Your task to perform on an android device: allow cookies in the chrome app Image 0: 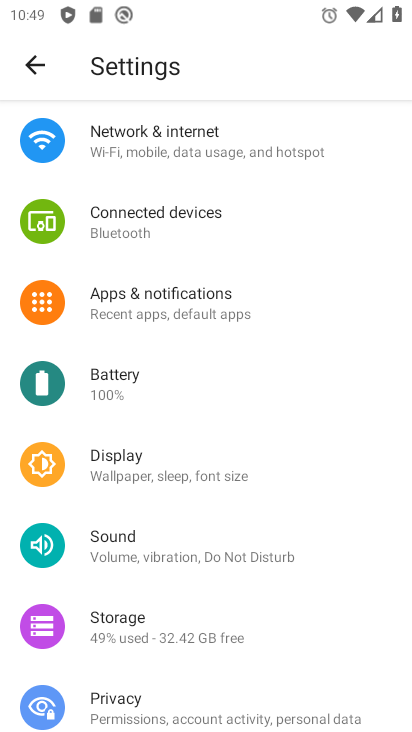
Step 0: press home button
Your task to perform on an android device: allow cookies in the chrome app Image 1: 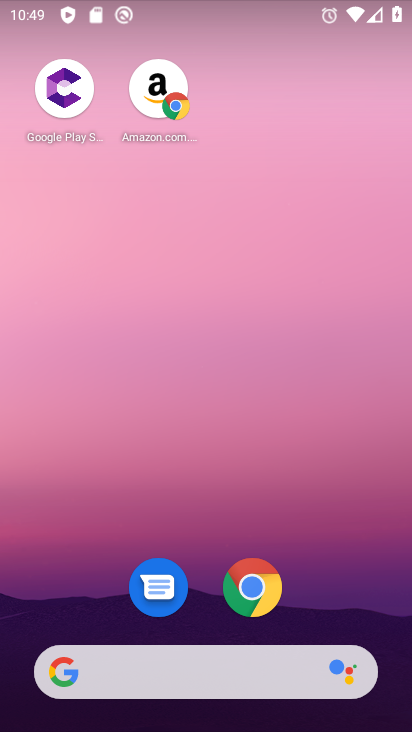
Step 1: drag from (313, 603) to (295, 46)
Your task to perform on an android device: allow cookies in the chrome app Image 2: 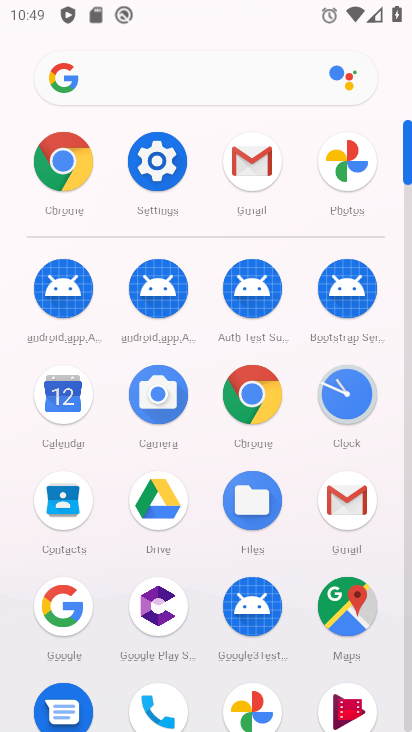
Step 2: click (56, 178)
Your task to perform on an android device: allow cookies in the chrome app Image 3: 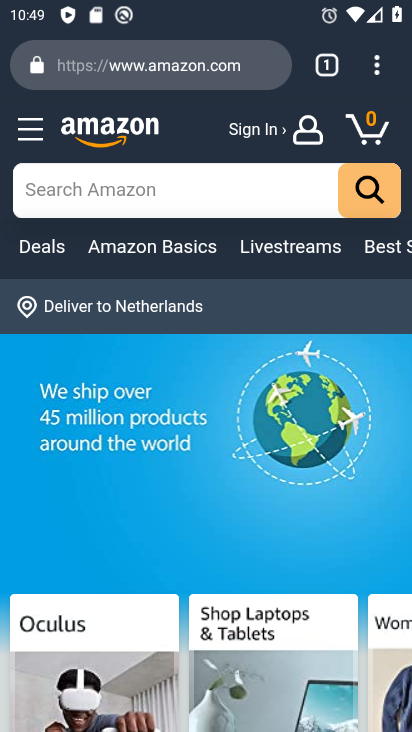
Step 3: drag from (381, 74) to (139, 638)
Your task to perform on an android device: allow cookies in the chrome app Image 4: 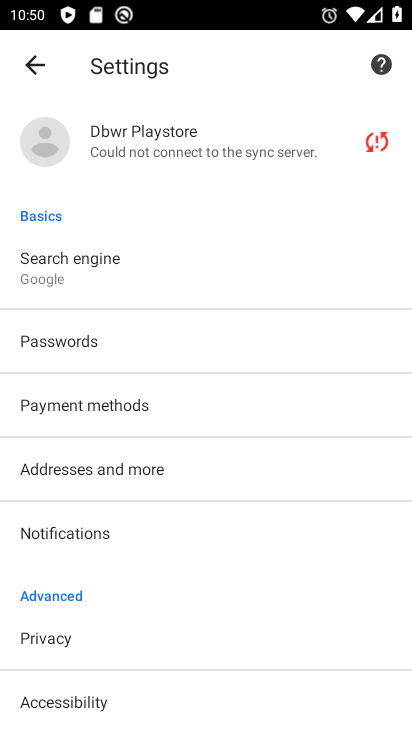
Step 4: drag from (141, 666) to (176, 200)
Your task to perform on an android device: allow cookies in the chrome app Image 5: 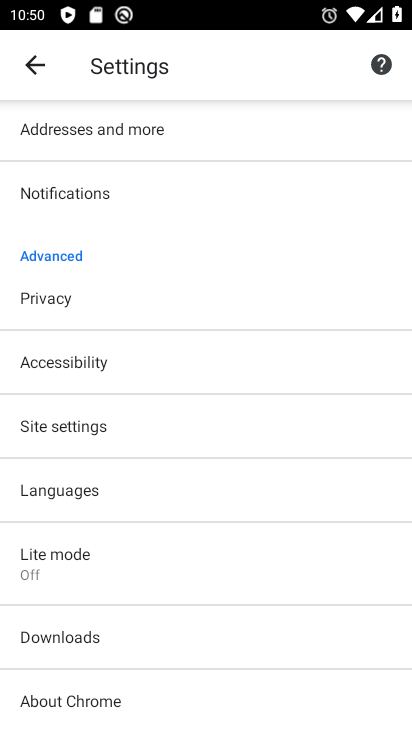
Step 5: drag from (155, 622) to (186, 172)
Your task to perform on an android device: allow cookies in the chrome app Image 6: 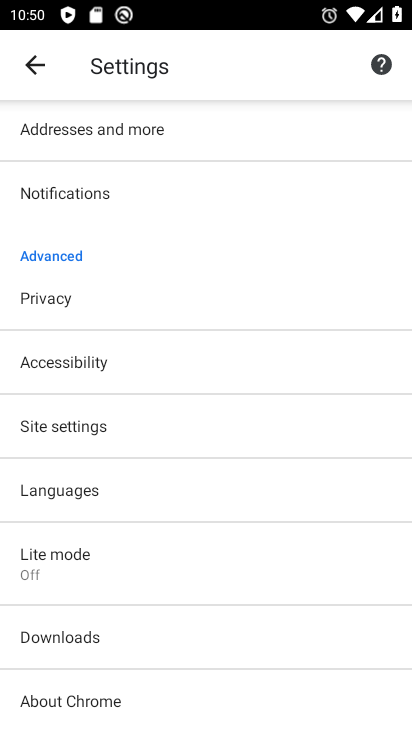
Step 6: drag from (168, 608) to (214, 183)
Your task to perform on an android device: allow cookies in the chrome app Image 7: 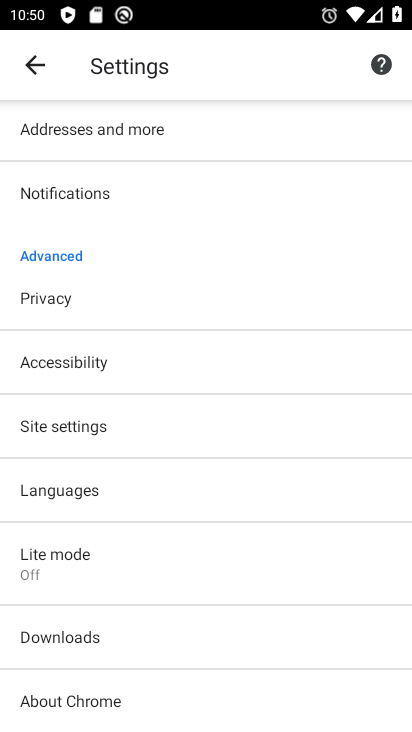
Step 7: drag from (214, 183) to (171, 627)
Your task to perform on an android device: allow cookies in the chrome app Image 8: 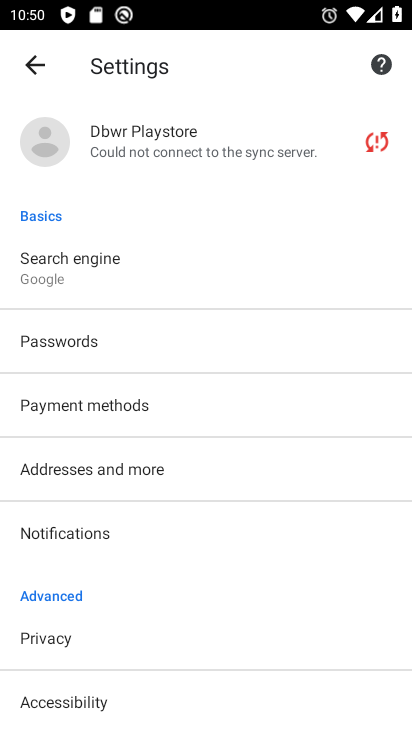
Step 8: drag from (153, 591) to (202, 222)
Your task to perform on an android device: allow cookies in the chrome app Image 9: 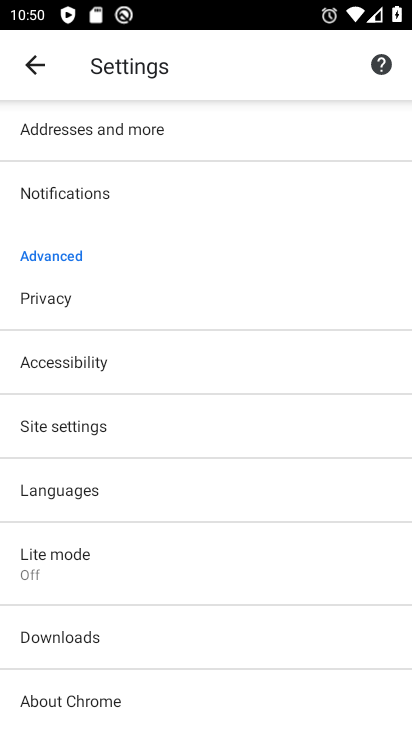
Step 9: drag from (179, 595) to (198, 250)
Your task to perform on an android device: allow cookies in the chrome app Image 10: 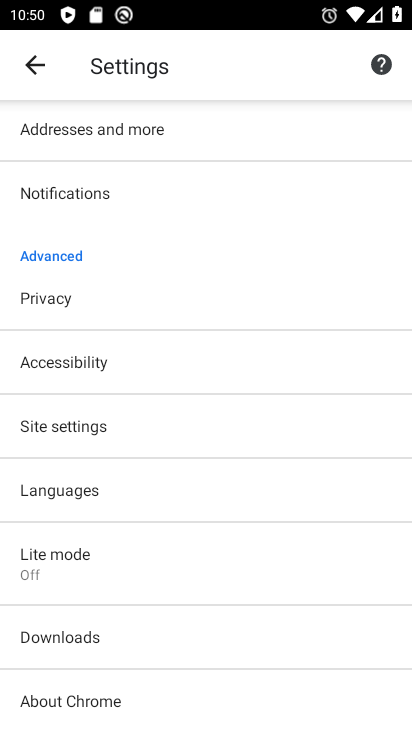
Step 10: drag from (198, 250) to (200, 616)
Your task to perform on an android device: allow cookies in the chrome app Image 11: 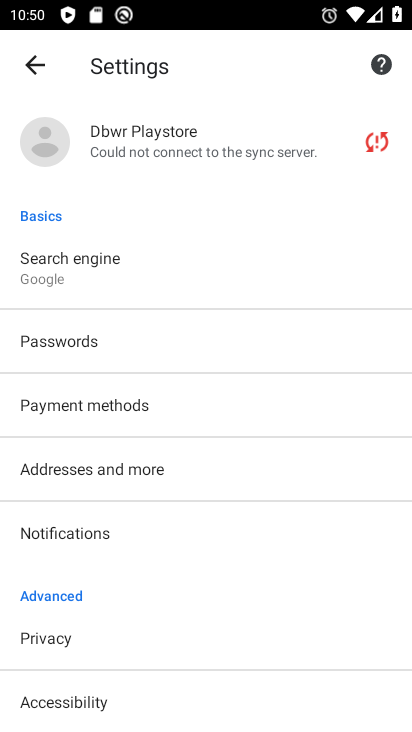
Step 11: drag from (134, 629) to (144, 145)
Your task to perform on an android device: allow cookies in the chrome app Image 12: 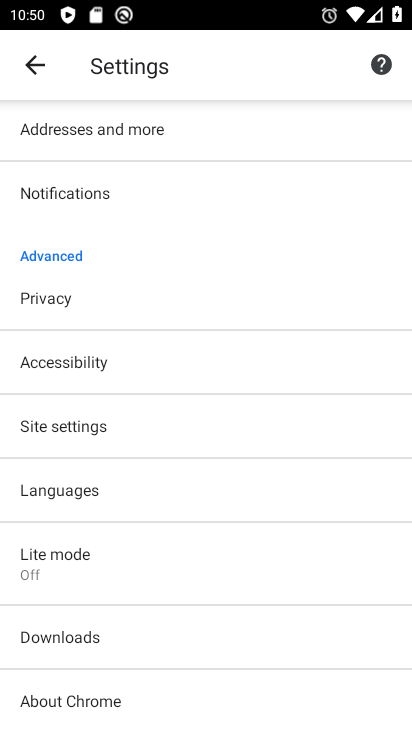
Step 12: click (69, 423)
Your task to perform on an android device: allow cookies in the chrome app Image 13: 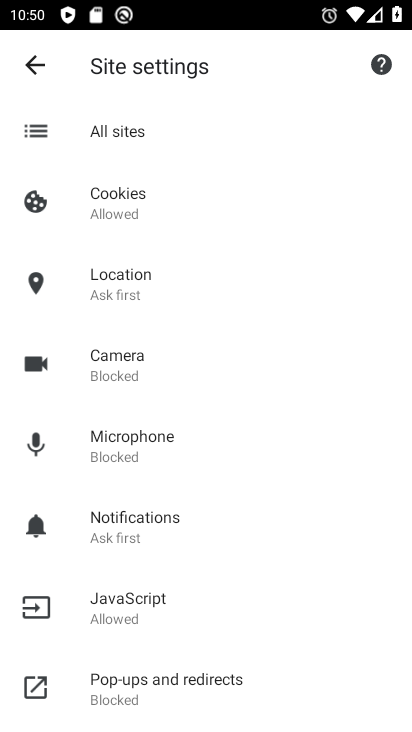
Step 13: click (116, 202)
Your task to perform on an android device: allow cookies in the chrome app Image 14: 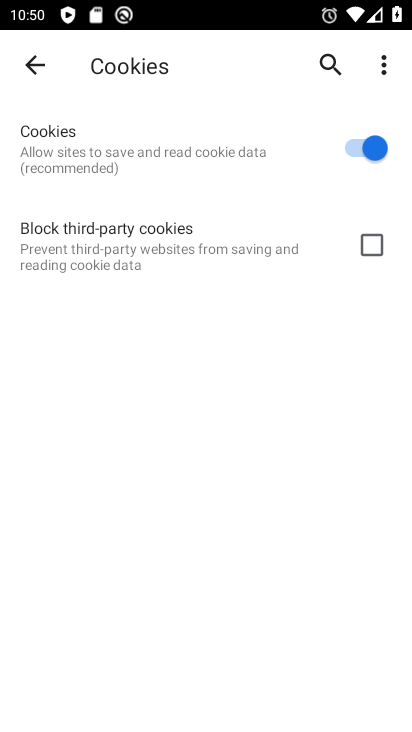
Step 14: task complete